Your task to perform on an android device: What's the news in Vietnam? Image 0: 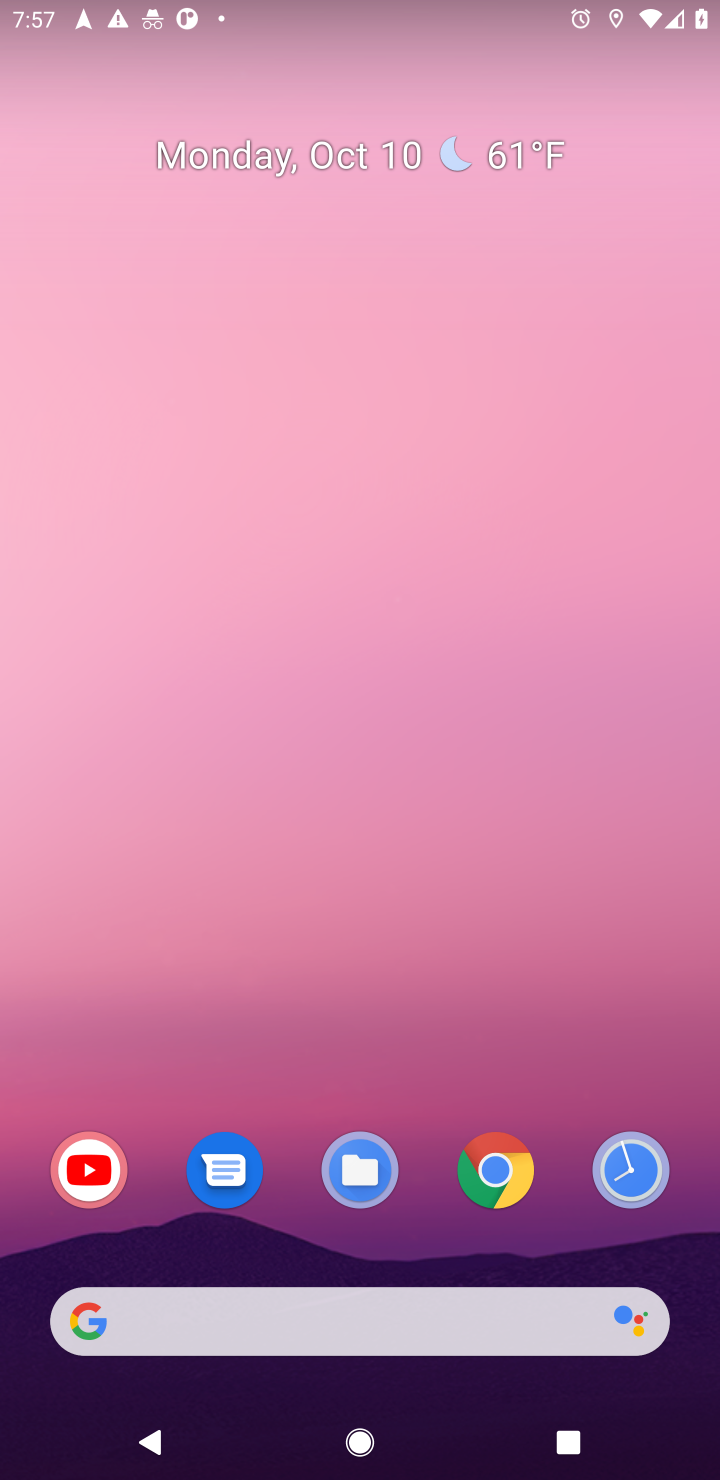
Step 0: click (516, 1179)
Your task to perform on an android device: What's the news in Vietnam? Image 1: 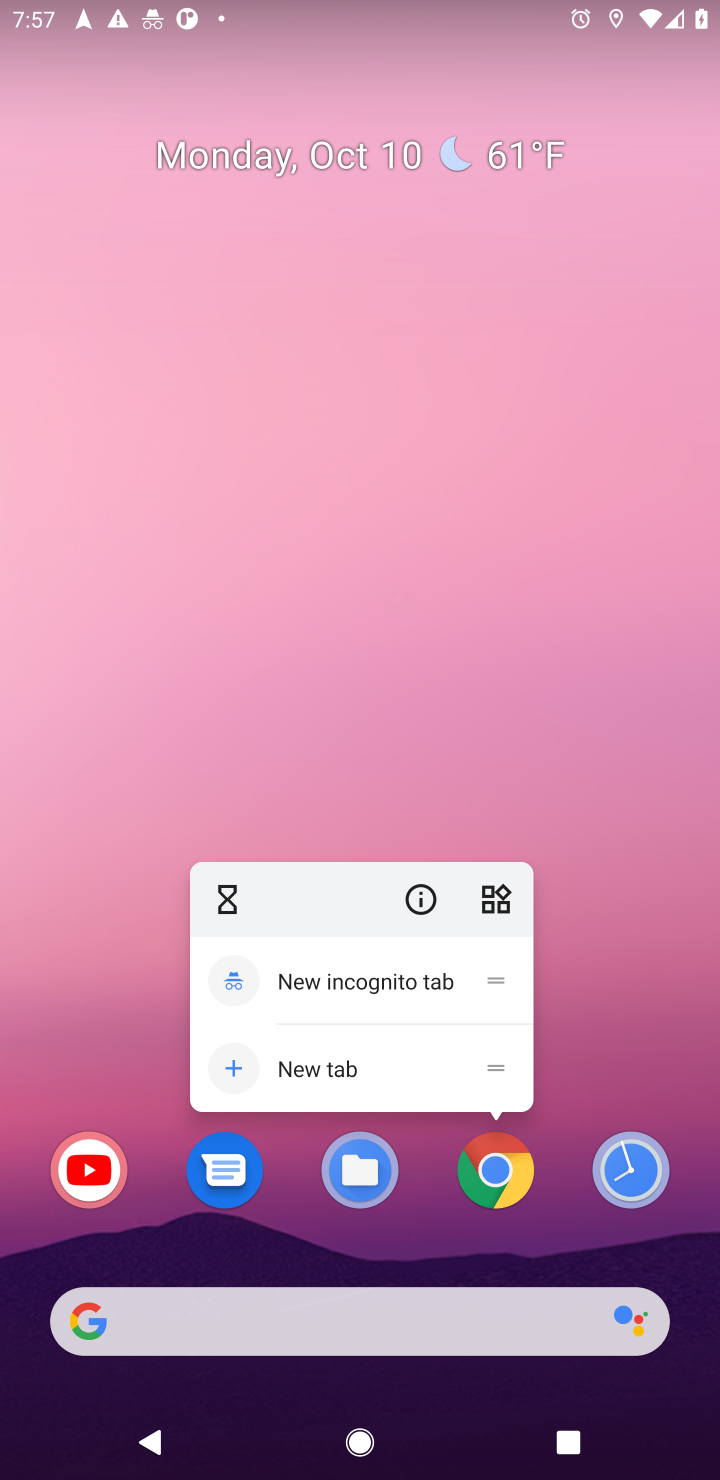
Step 1: click (477, 1174)
Your task to perform on an android device: What's the news in Vietnam? Image 2: 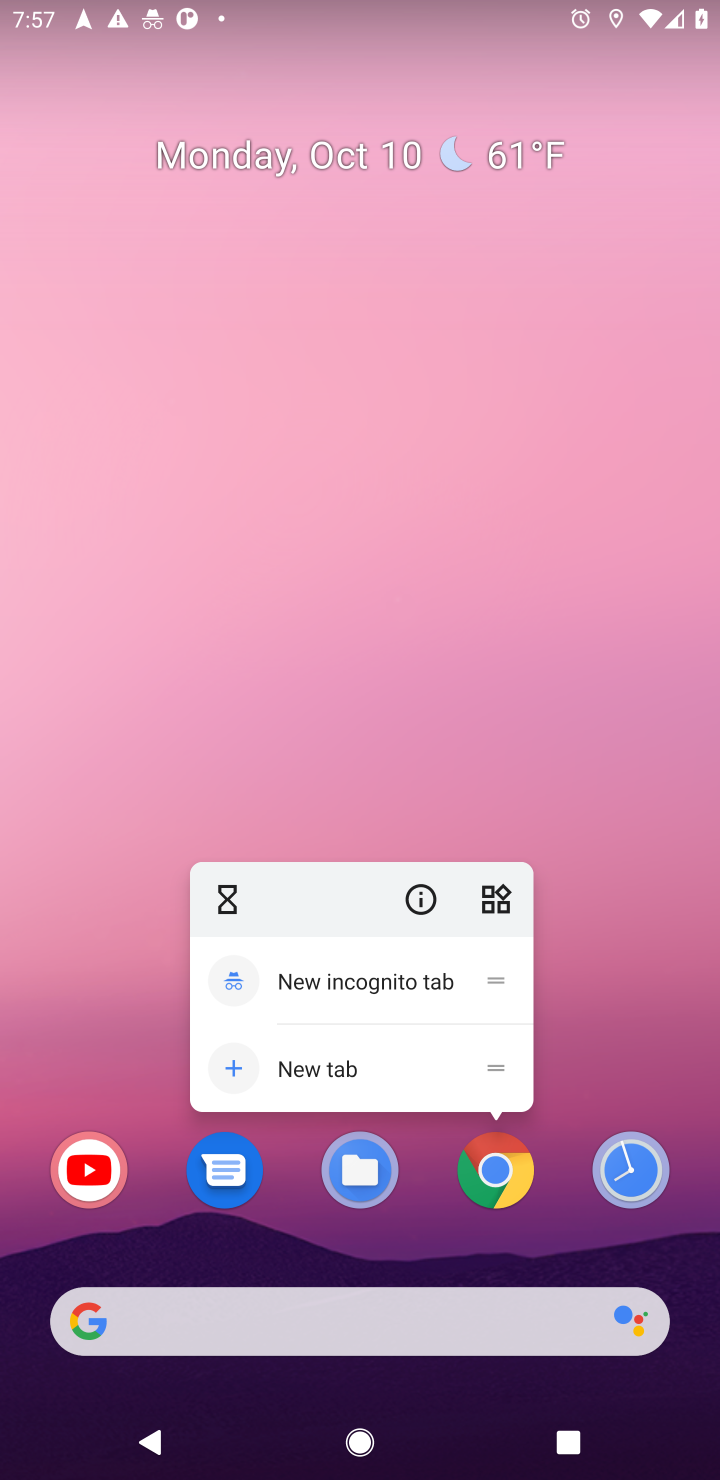
Step 2: click (477, 1174)
Your task to perform on an android device: What's the news in Vietnam? Image 3: 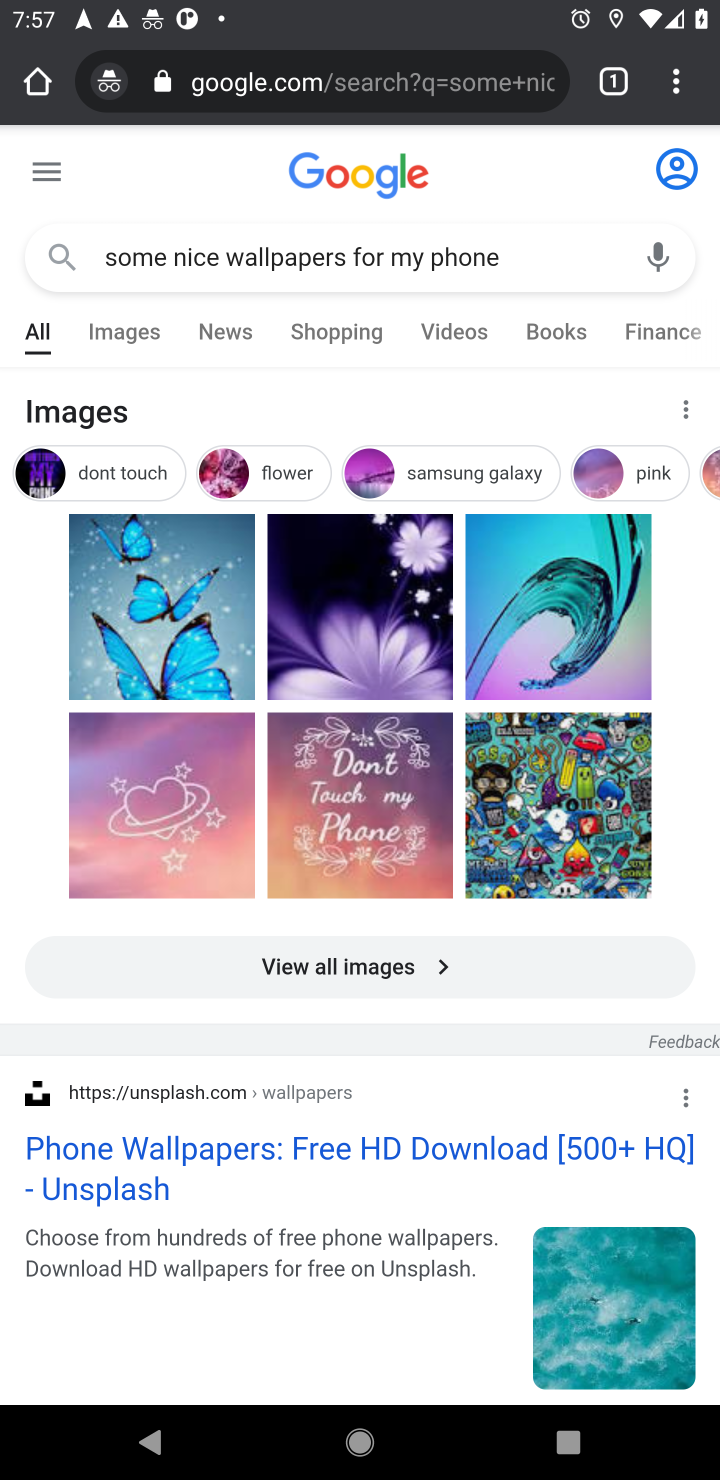
Step 3: click (388, 103)
Your task to perform on an android device: What's the news in Vietnam? Image 4: 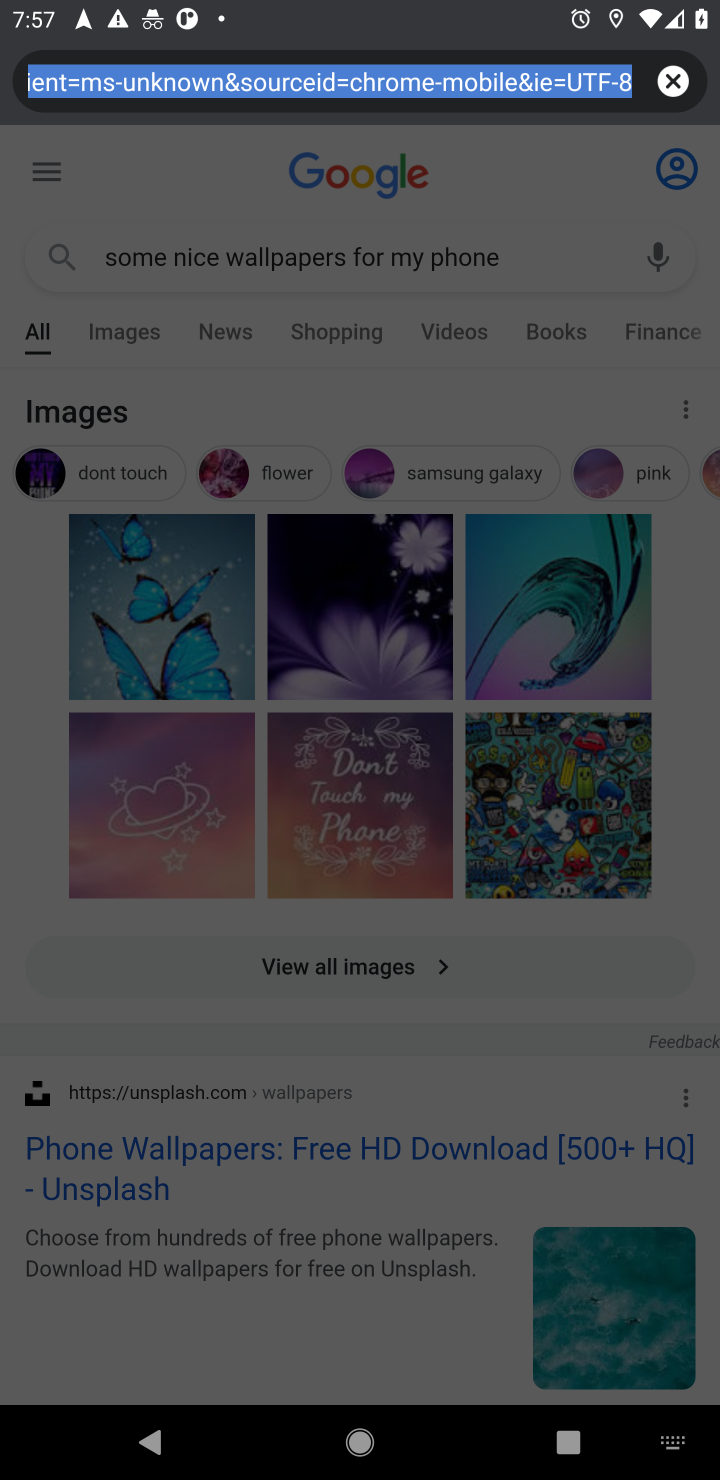
Step 4: type "news in Vietnam"
Your task to perform on an android device: What's the news in Vietnam? Image 5: 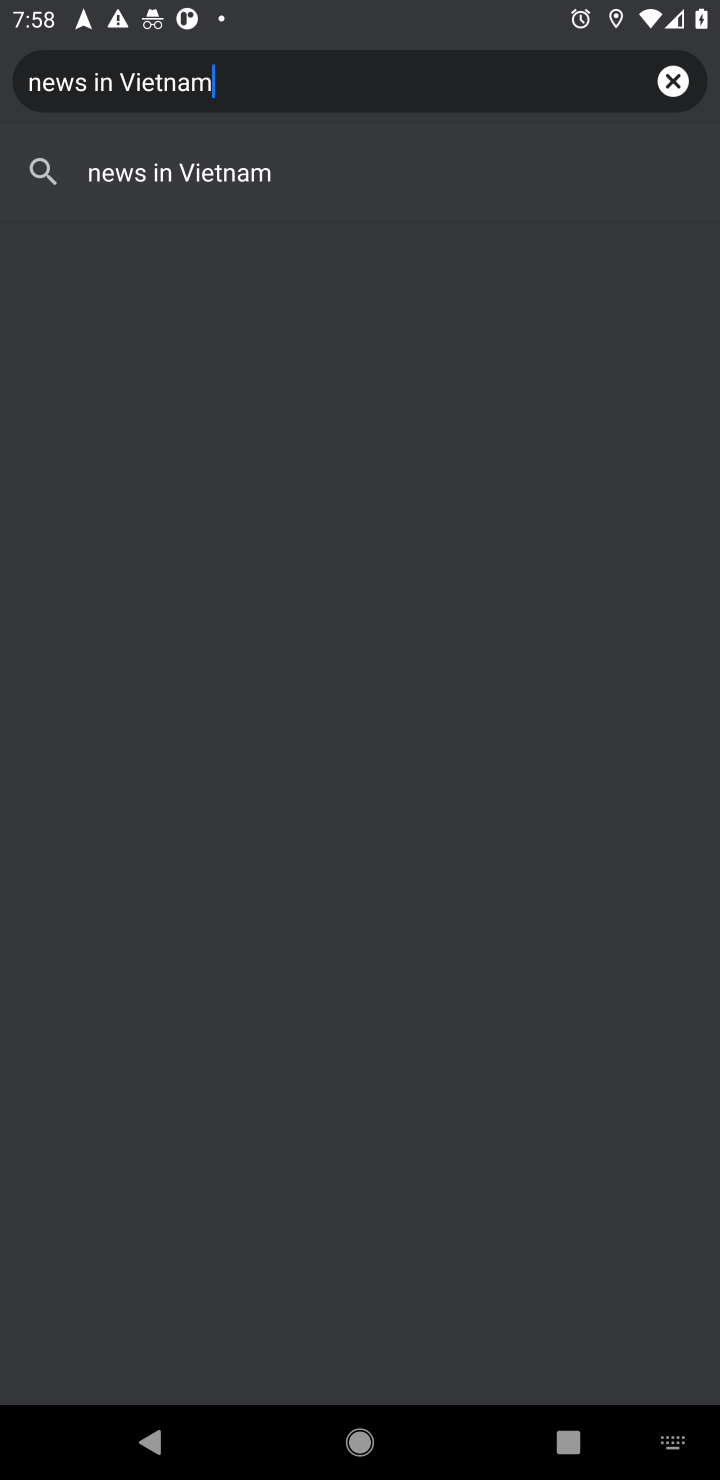
Step 5: click (279, 147)
Your task to perform on an android device: What's the news in Vietnam? Image 6: 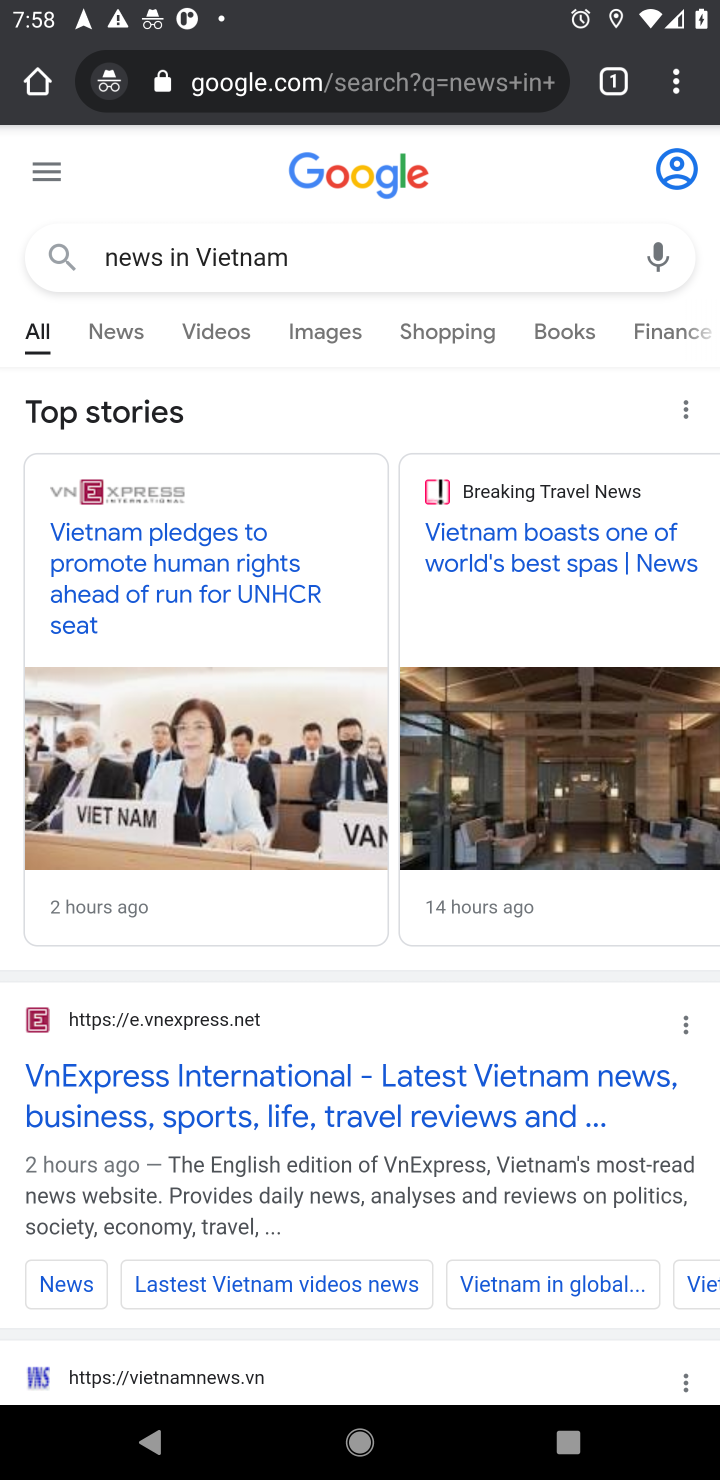
Step 6: click (109, 327)
Your task to perform on an android device: What's the news in Vietnam? Image 7: 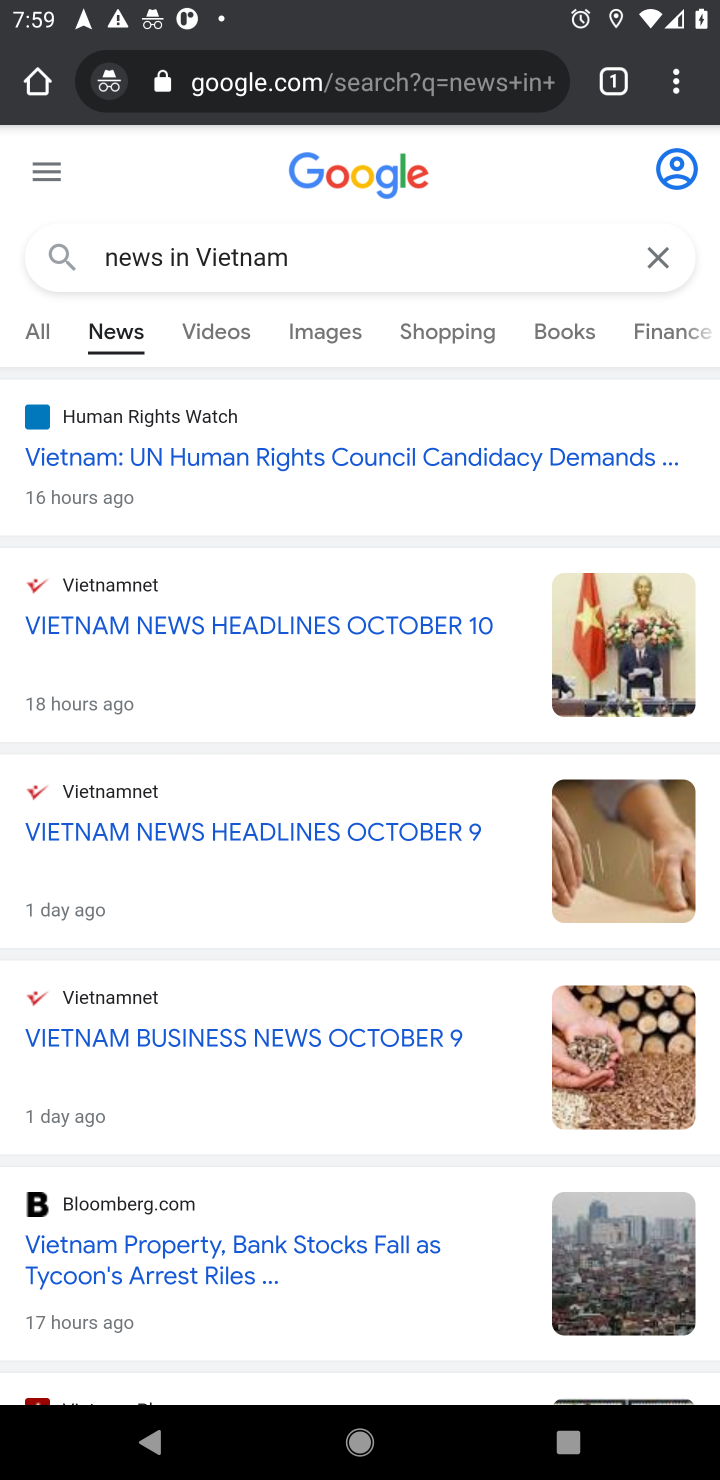
Step 7: task complete